Your task to perform on an android device: Open sound settings Image 0: 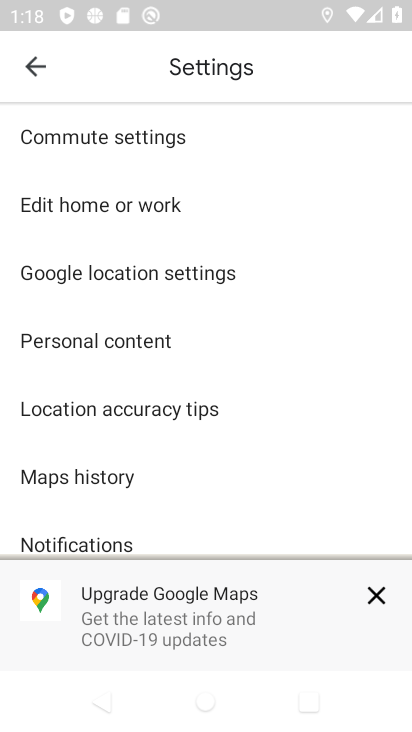
Step 0: press home button
Your task to perform on an android device: Open sound settings Image 1: 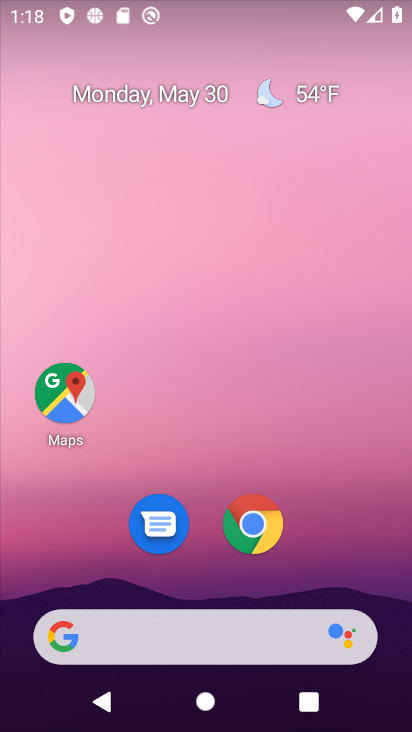
Step 1: drag from (207, 474) to (266, 35)
Your task to perform on an android device: Open sound settings Image 2: 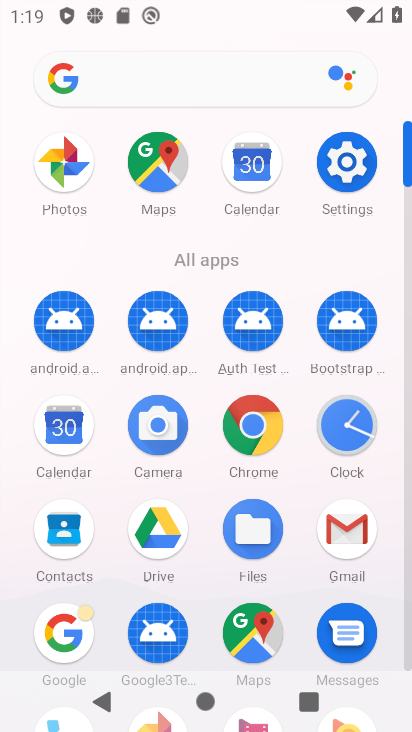
Step 2: click (344, 170)
Your task to perform on an android device: Open sound settings Image 3: 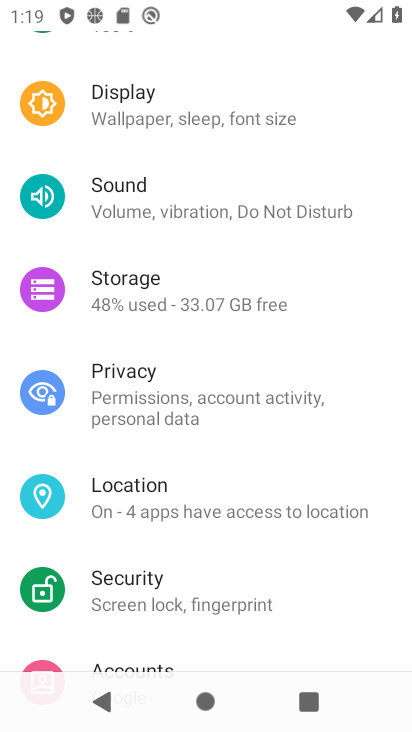
Step 3: click (243, 189)
Your task to perform on an android device: Open sound settings Image 4: 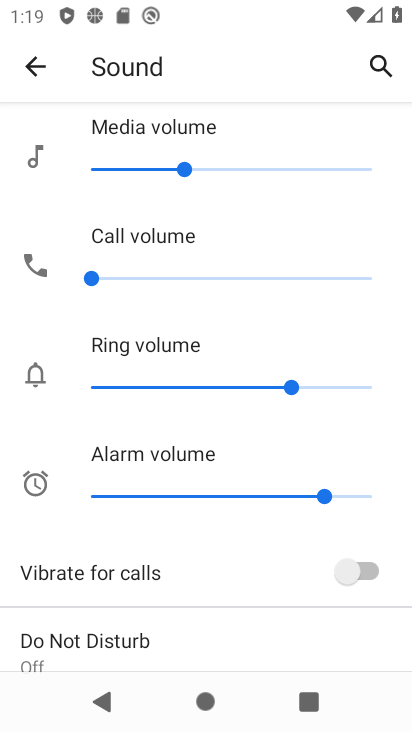
Step 4: task complete